Your task to perform on an android device: Go to CNN.com Image 0: 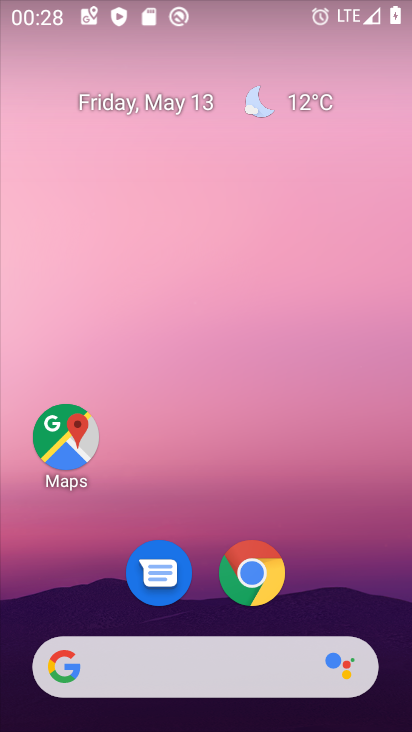
Step 0: click (266, 579)
Your task to perform on an android device: Go to CNN.com Image 1: 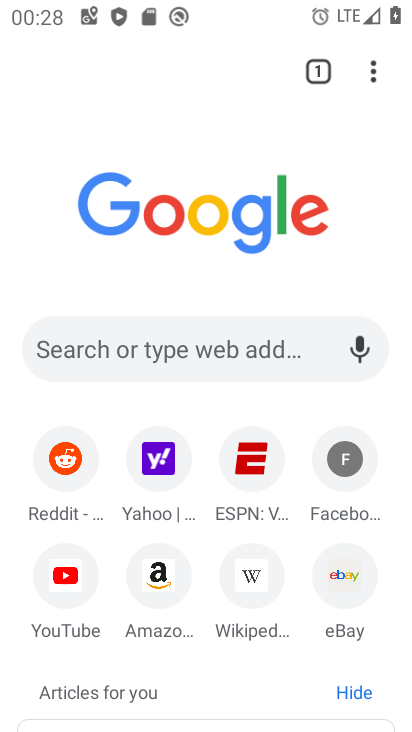
Step 1: click (235, 346)
Your task to perform on an android device: Go to CNN.com Image 2: 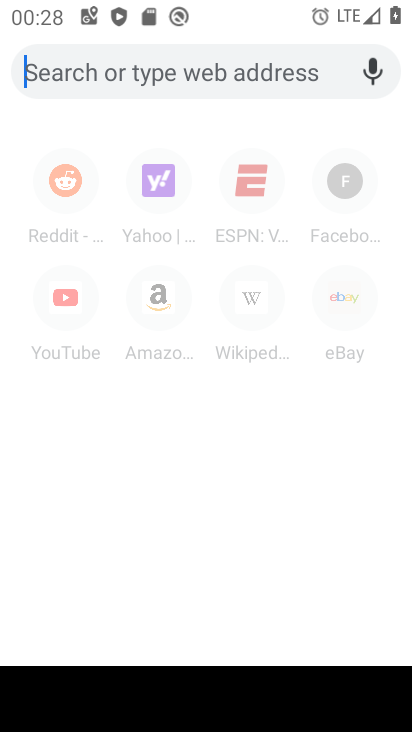
Step 2: type "cnn.com"
Your task to perform on an android device: Go to CNN.com Image 3: 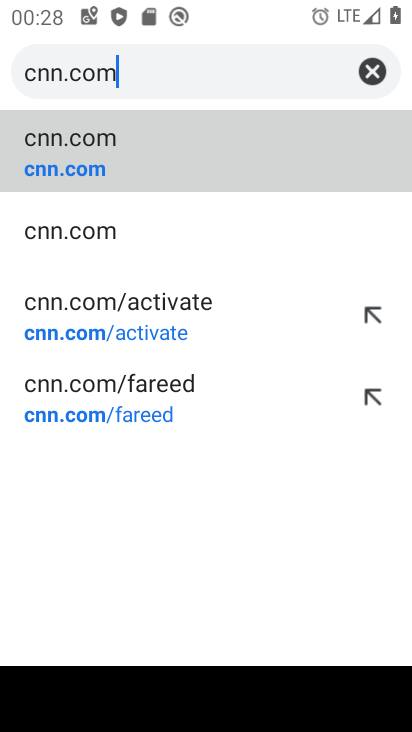
Step 3: click (181, 156)
Your task to perform on an android device: Go to CNN.com Image 4: 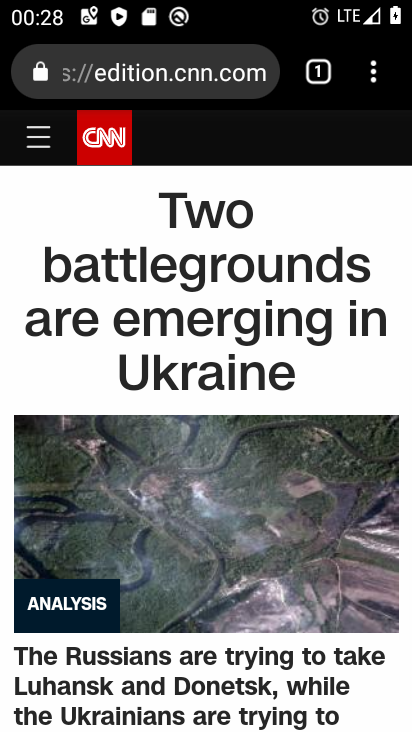
Step 4: task complete